Your task to perform on an android device: Search for Mexican restaurants on Maps Image 0: 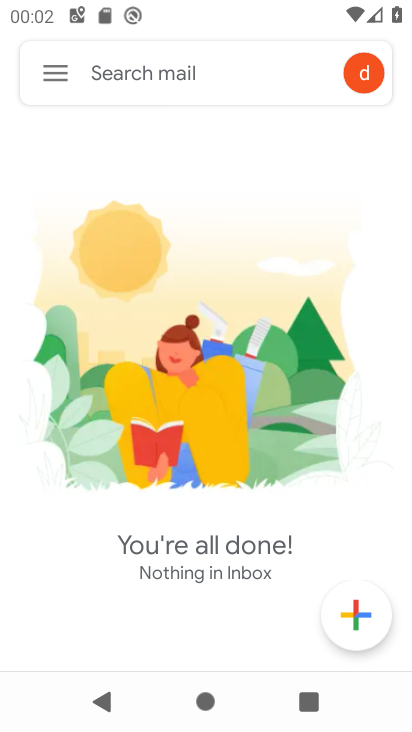
Step 0: press home button
Your task to perform on an android device: Search for Mexican restaurants on Maps Image 1: 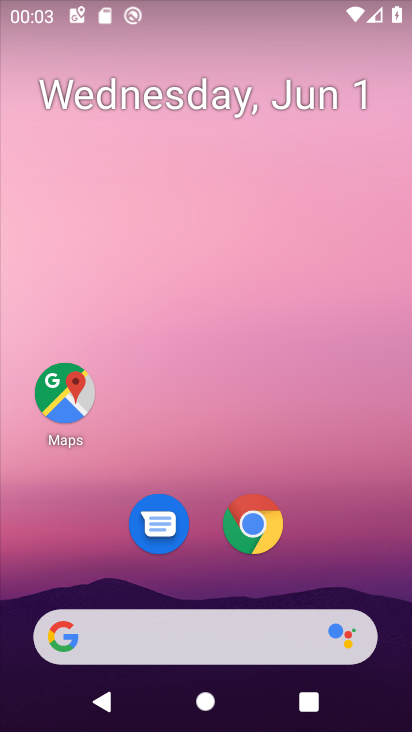
Step 1: click (73, 400)
Your task to perform on an android device: Search for Mexican restaurants on Maps Image 2: 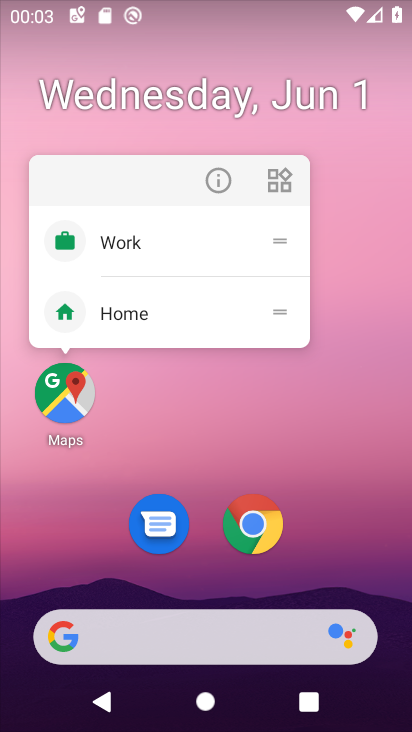
Step 2: click (73, 400)
Your task to perform on an android device: Search for Mexican restaurants on Maps Image 3: 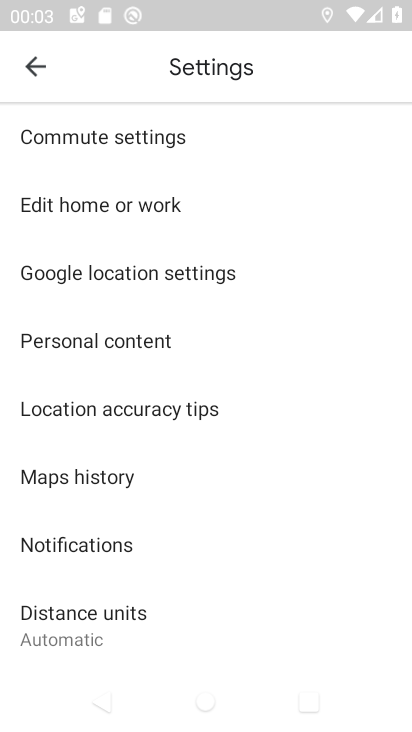
Step 3: click (34, 63)
Your task to perform on an android device: Search for Mexican restaurants on Maps Image 4: 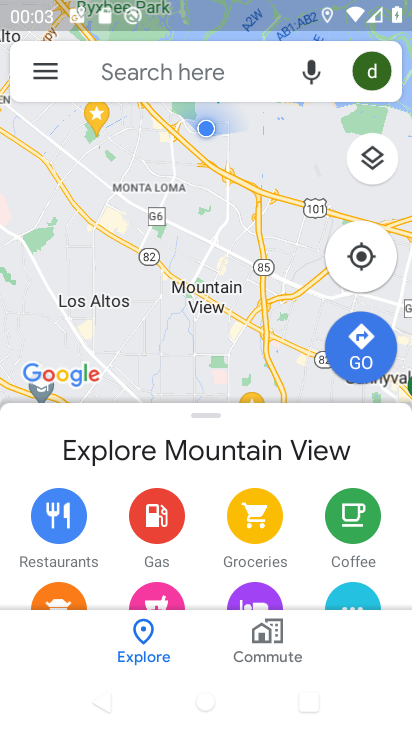
Step 4: click (124, 54)
Your task to perform on an android device: Search for Mexican restaurants on Maps Image 5: 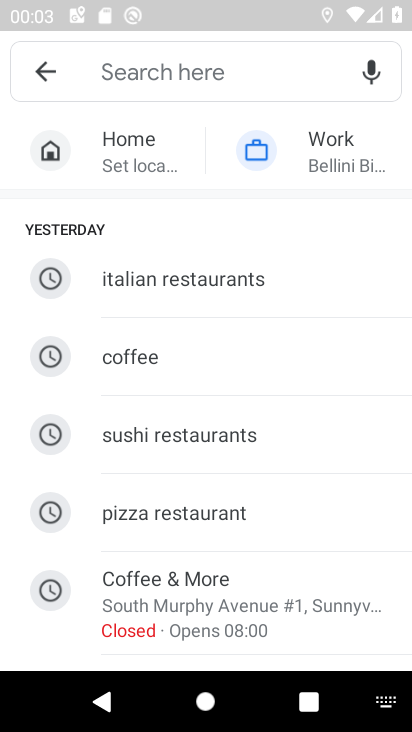
Step 5: drag from (202, 537) to (249, 242)
Your task to perform on an android device: Search for Mexican restaurants on Maps Image 6: 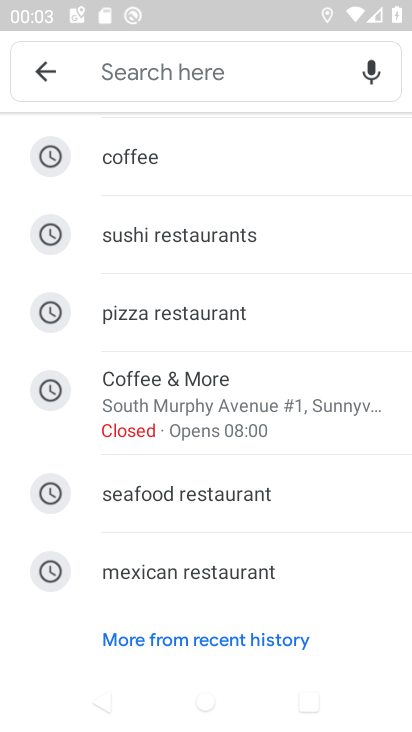
Step 6: click (216, 574)
Your task to perform on an android device: Search for Mexican restaurants on Maps Image 7: 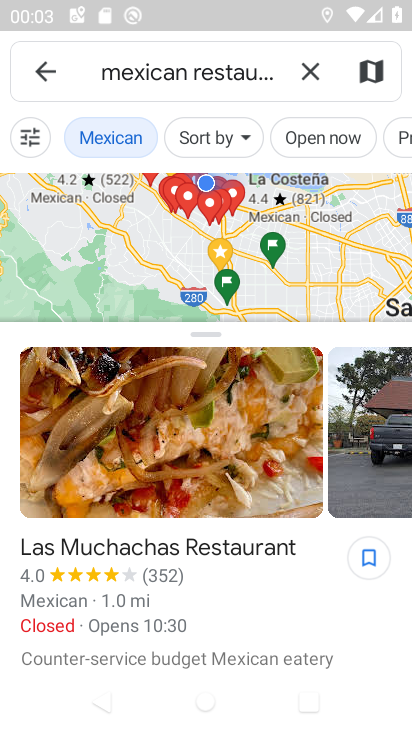
Step 7: task complete